Your task to perform on an android device: Show me recent news Image 0: 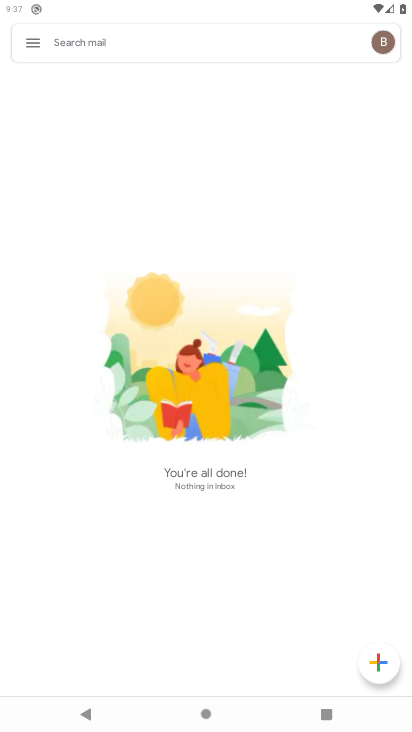
Step 0: press home button
Your task to perform on an android device: Show me recent news Image 1: 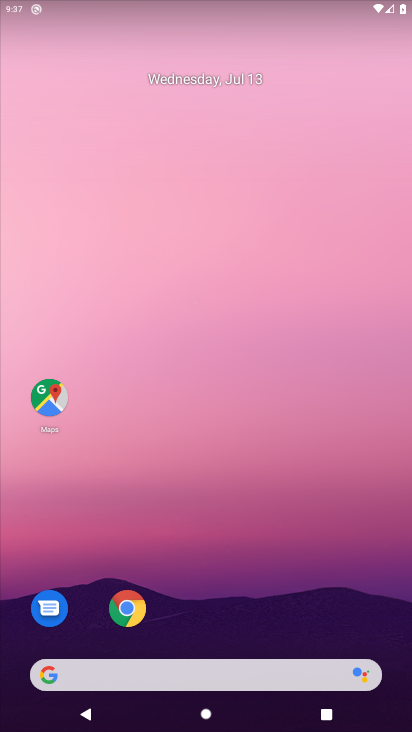
Step 1: click (127, 673)
Your task to perform on an android device: Show me recent news Image 2: 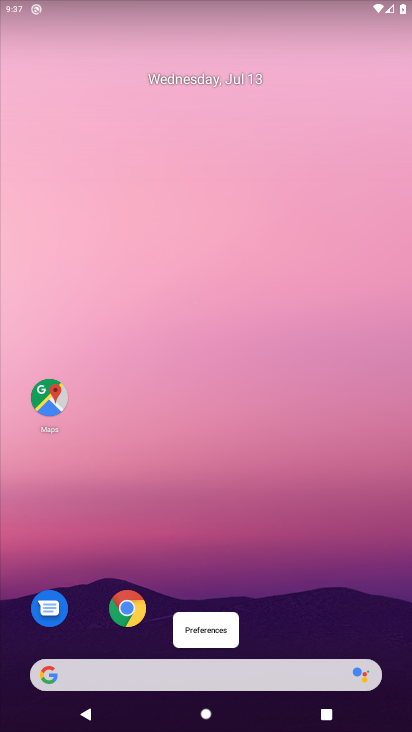
Step 2: click (94, 661)
Your task to perform on an android device: Show me recent news Image 3: 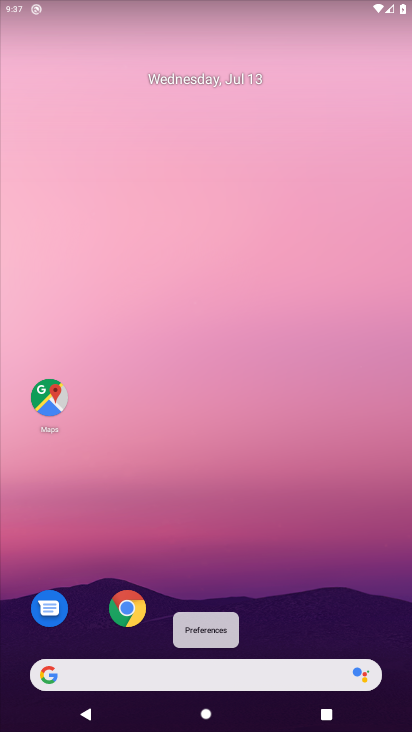
Step 3: click (93, 669)
Your task to perform on an android device: Show me recent news Image 4: 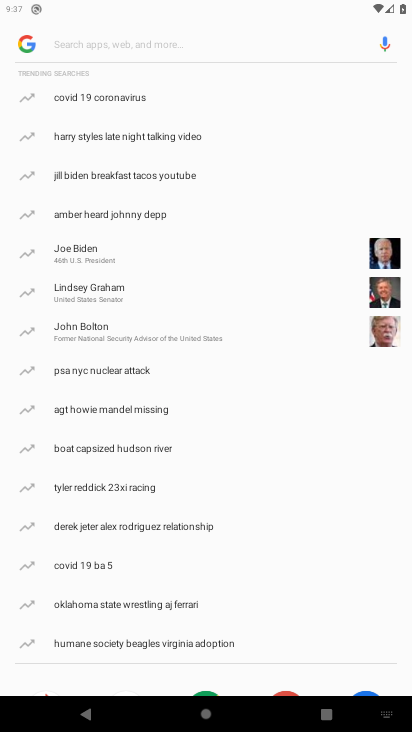
Step 4: type "Show me recent news"
Your task to perform on an android device: Show me recent news Image 5: 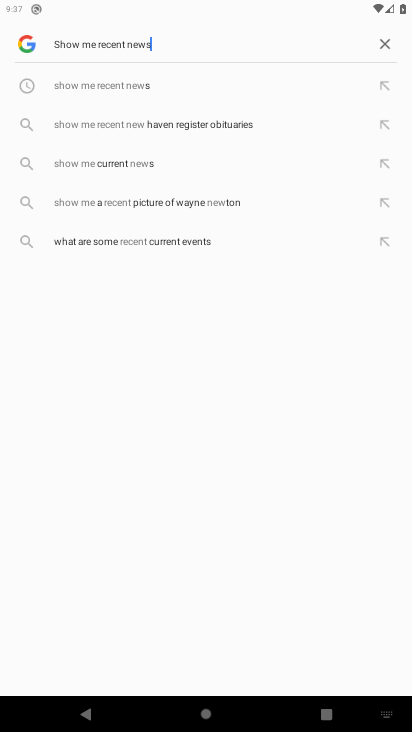
Step 5: type ""
Your task to perform on an android device: Show me recent news Image 6: 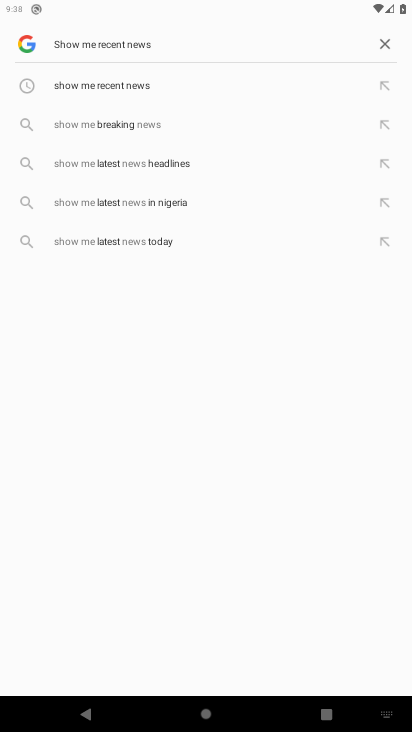
Step 6: click (139, 82)
Your task to perform on an android device: Show me recent news Image 7: 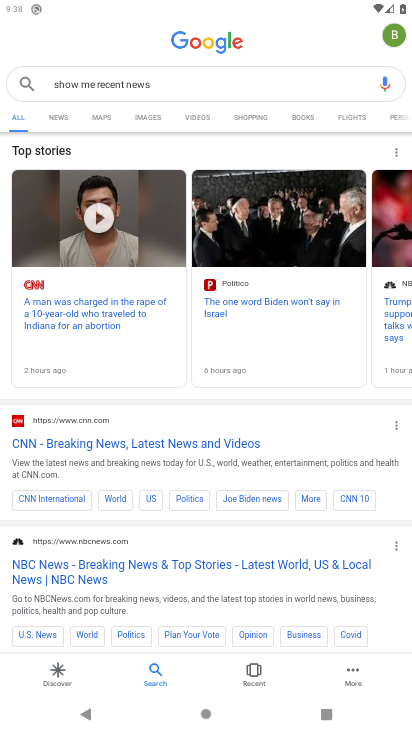
Step 7: task complete